Your task to perform on an android device: add a contact Image 0: 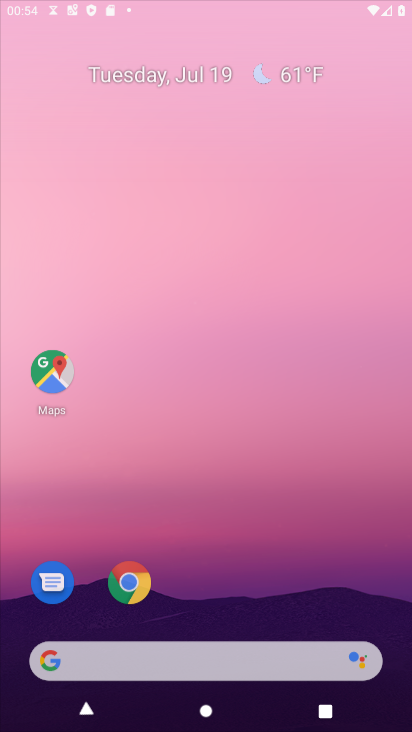
Step 0: drag from (255, 105) to (198, 215)
Your task to perform on an android device: add a contact Image 1: 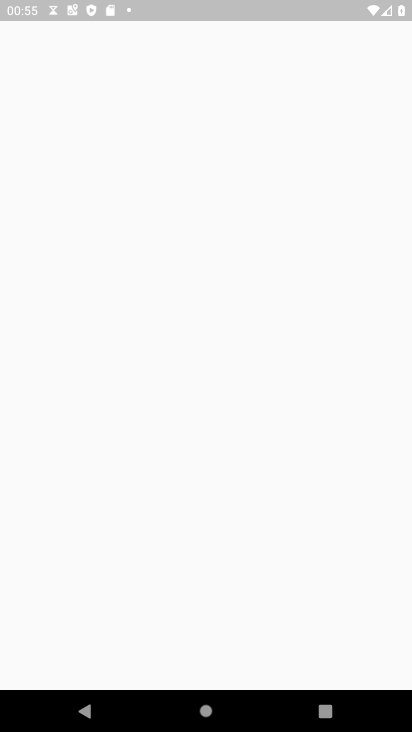
Step 1: press home button
Your task to perform on an android device: add a contact Image 2: 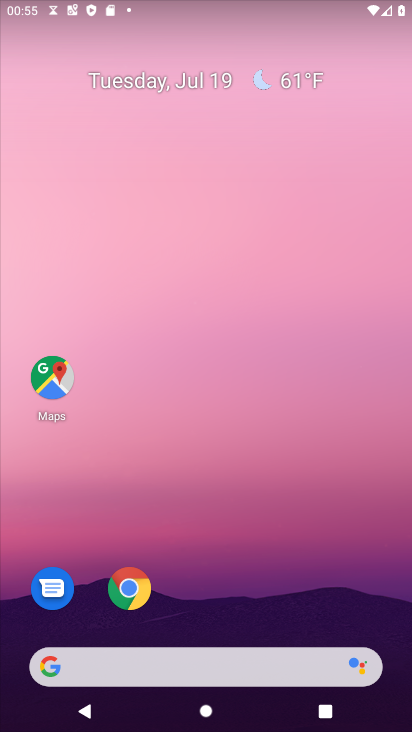
Step 2: drag from (279, 673) to (201, 138)
Your task to perform on an android device: add a contact Image 3: 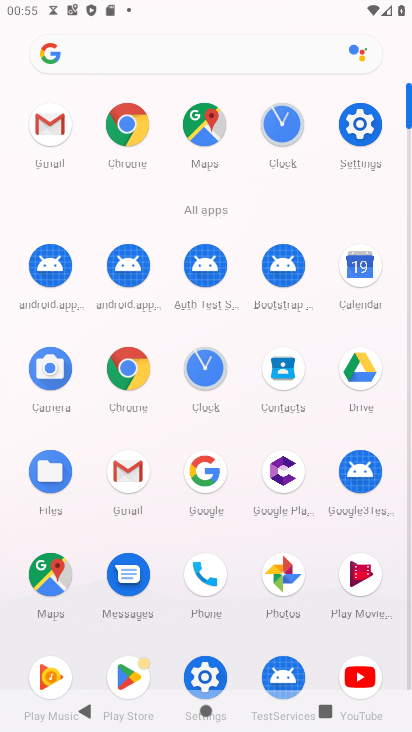
Step 3: click (209, 584)
Your task to perform on an android device: add a contact Image 4: 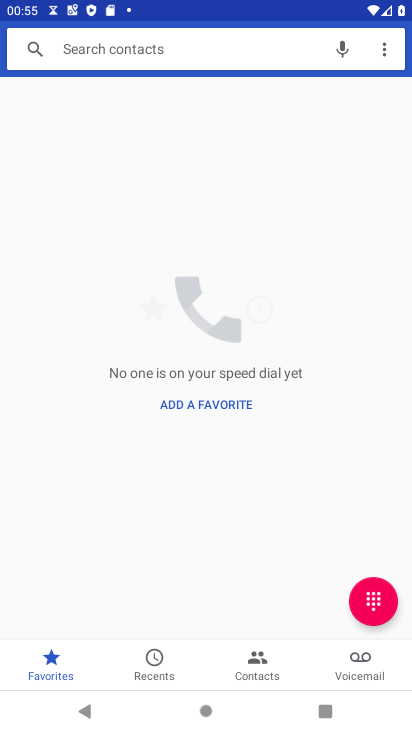
Step 4: click (263, 671)
Your task to perform on an android device: add a contact Image 5: 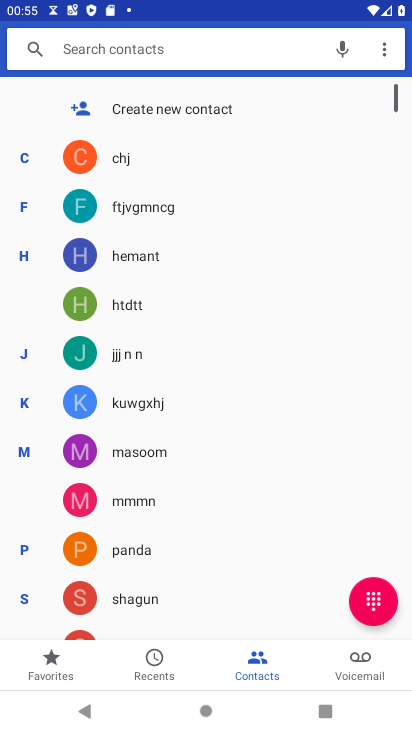
Step 5: click (149, 109)
Your task to perform on an android device: add a contact Image 6: 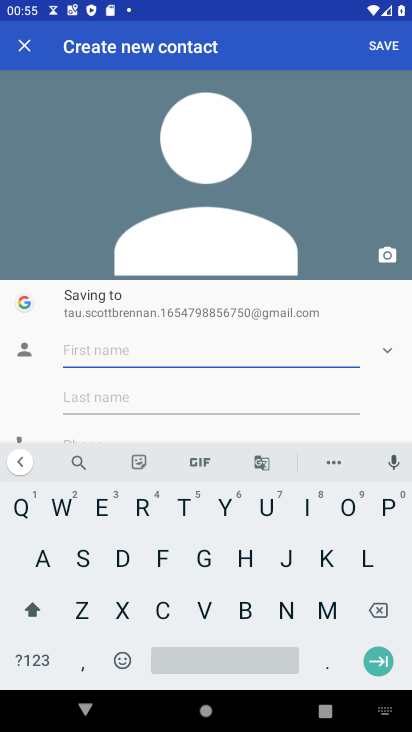
Step 6: click (136, 526)
Your task to perform on an android device: add a contact Image 7: 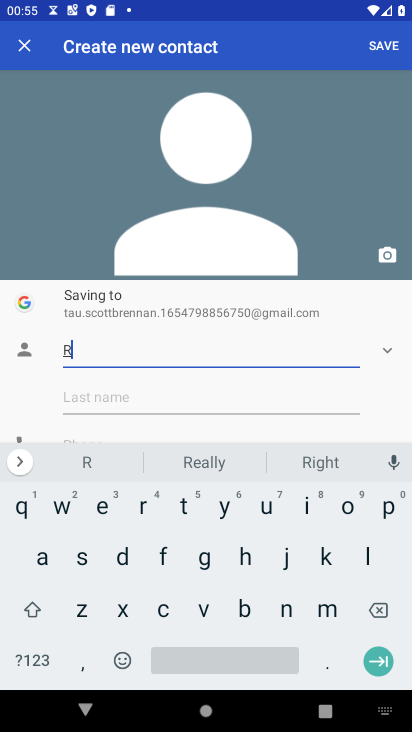
Step 7: click (180, 504)
Your task to perform on an android device: add a contact Image 8: 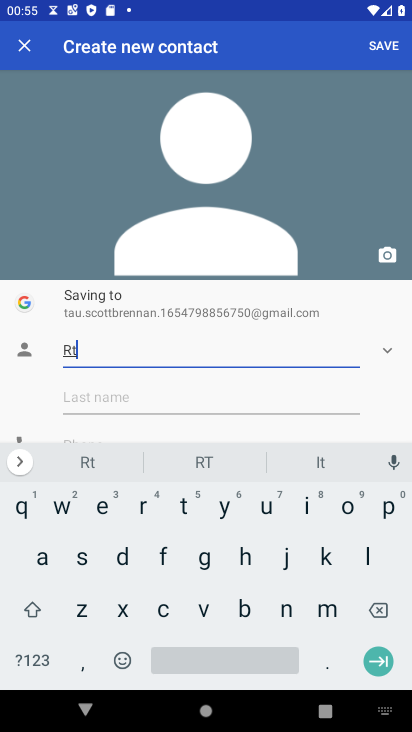
Step 8: click (131, 432)
Your task to perform on an android device: add a contact Image 9: 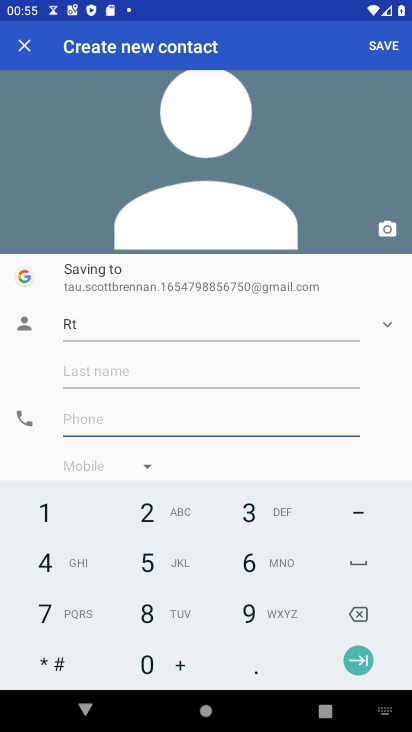
Step 9: click (137, 558)
Your task to perform on an android device: add a contact Image 10: 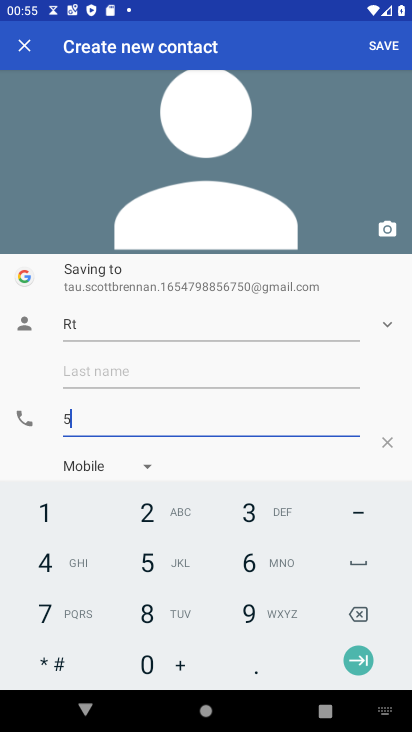
Step 10: click (51, 564)
Your task to perform on an android device: add a contact Image 11: 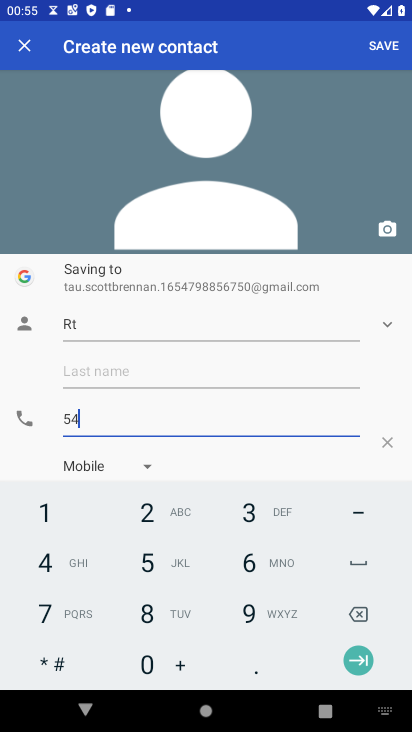
Step 11: click (159, 616)
Your task to perform on an android device: add a contact Image 12: 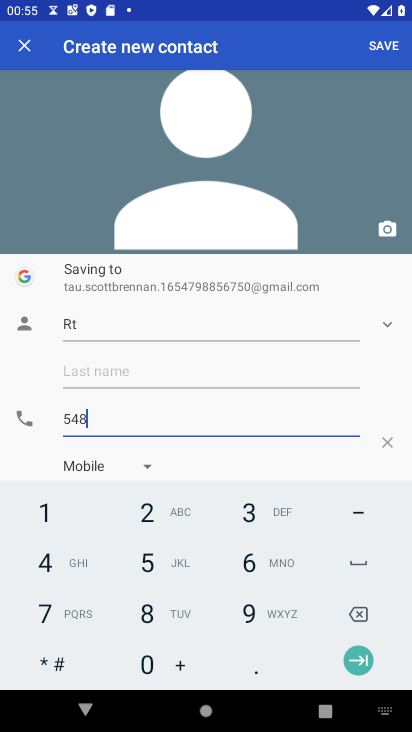
Step 12: click (254, 511)
Your task to perform on an android device: add a contact Image 13: 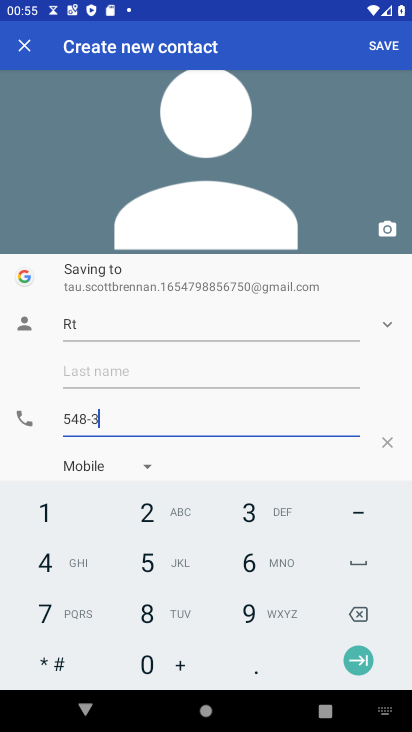
Step 13: click (261, 538)
Your task to perform on an android device: add a contact Image 14: 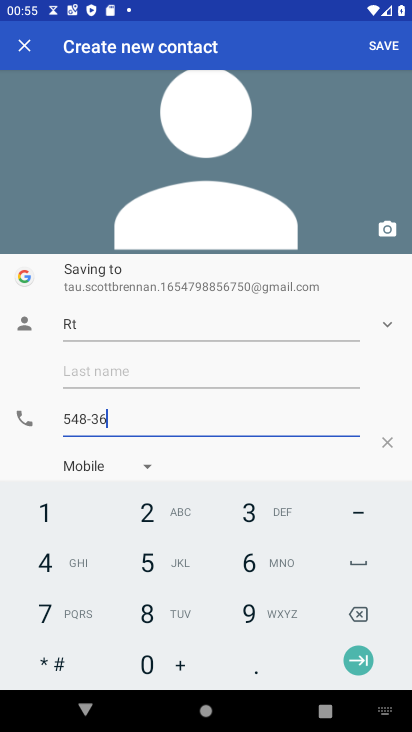
Step 14: click (159, 562)
Your task to perform on an android device: add a contact Image 15: 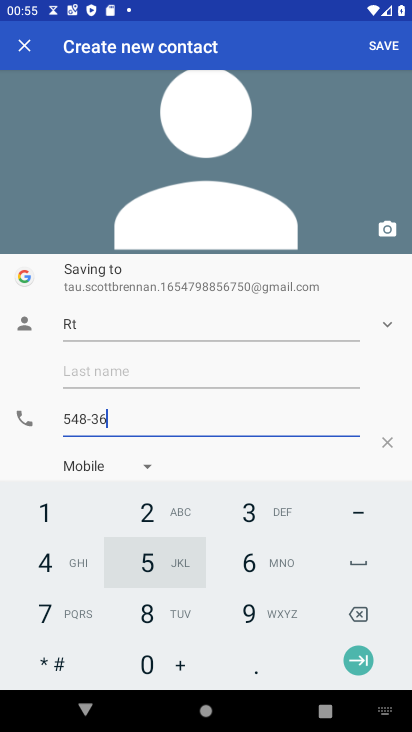
Step 15: click (158, 528)
Your task to perform on an android device: add a contact Image 16: 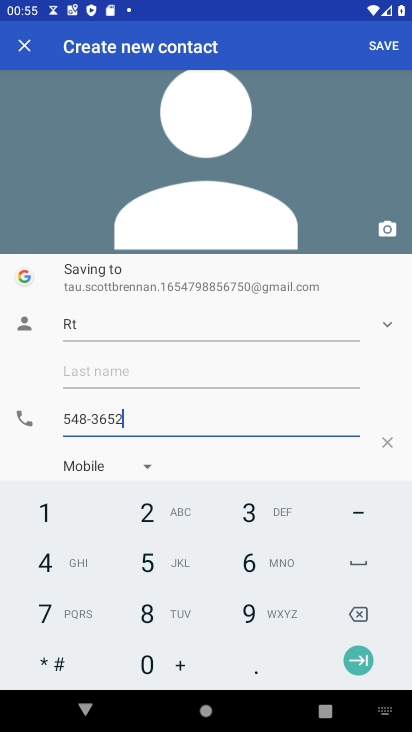
Step 16: click (395, 53)
Your task to perform on an android device: add a contact Image 17: 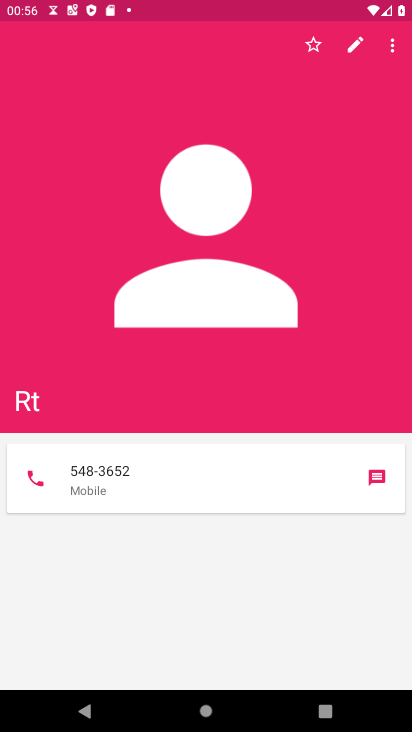
Step 17: task complete